Your task to perform on an android device: Go to Google maps Image 0: 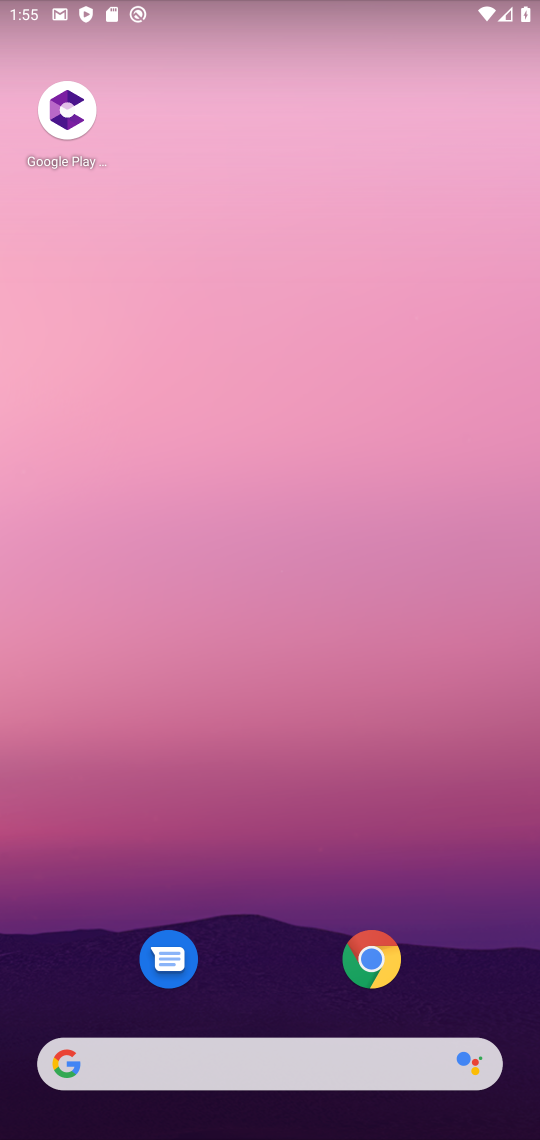
Step 0: drag from (112, 1059) to (266, 194)
Your task to perform on an android device: Go to Google maps Image 1: 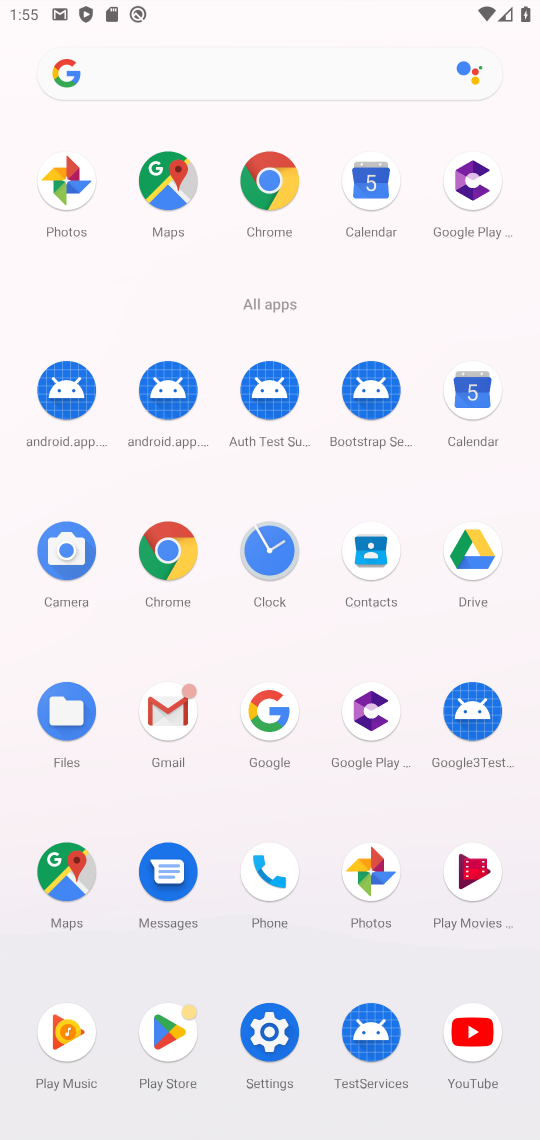
Step 1: click (86, 884)
Your task to perform on an android device: Go to Google maps Image 2: 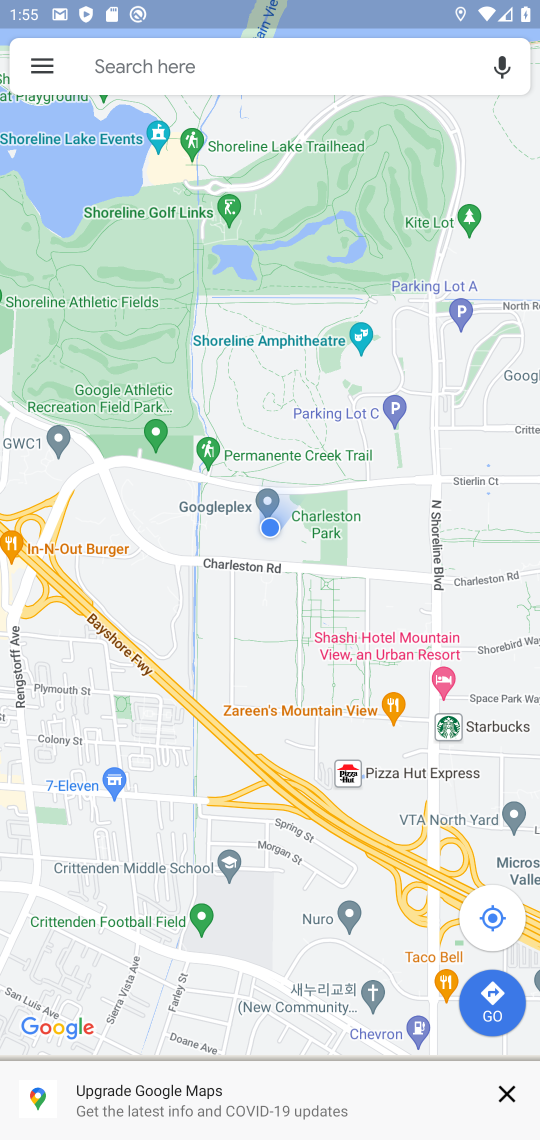
Step 2: task complete